Your task to perform on an android device: open chrome privacy settings Image 0: 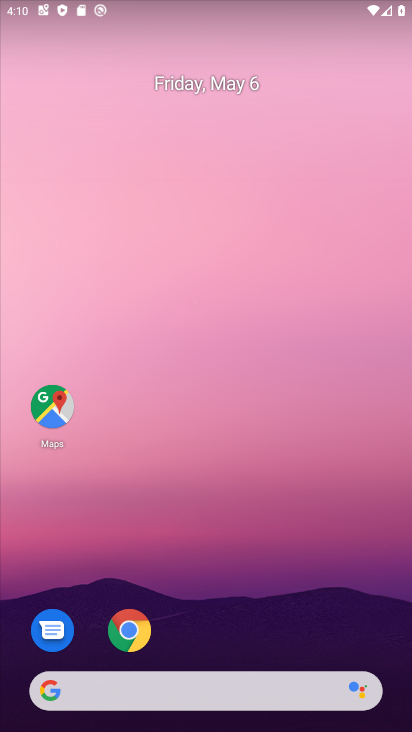
Step 0: click (131, 626)
Your task to perform on an android device: open chrome privacy settings Image 1: 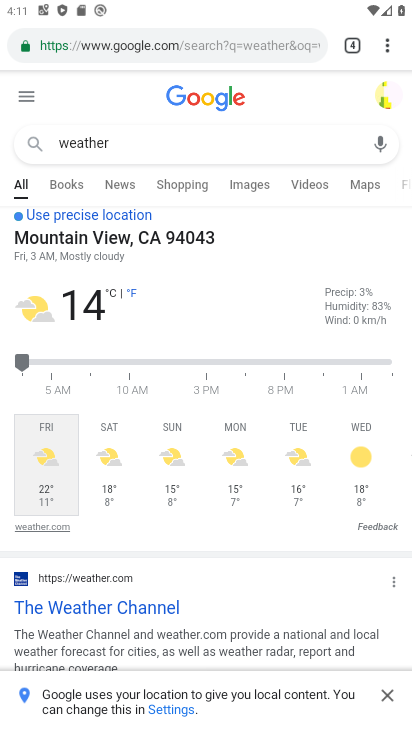
Step 1: drag from (388, 42) to (229, 506)
Your task to perform on an android device: open chrome privacy settings Image 2: 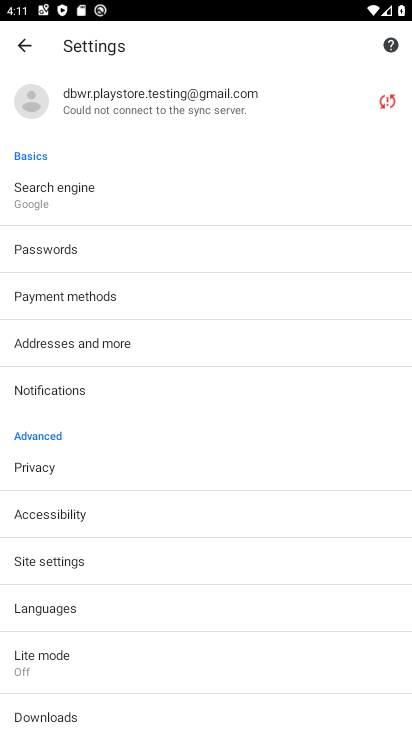
Step 2: click (79, 470)
Your task to perform on an android device: open chrome privacy settings Image 3: 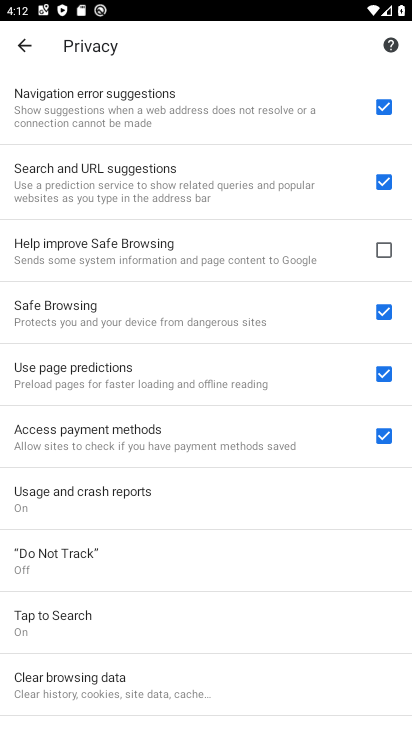
Step 3: task complete